Your task to perform on an android device: Go to Google Image 0: 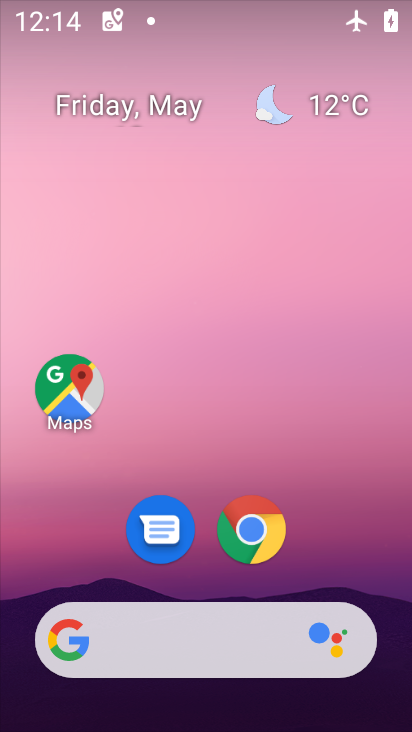
Step 0: drag from (327, 399) to (323, 263)
Your task to perform on an android device: Go to Google Image 1: 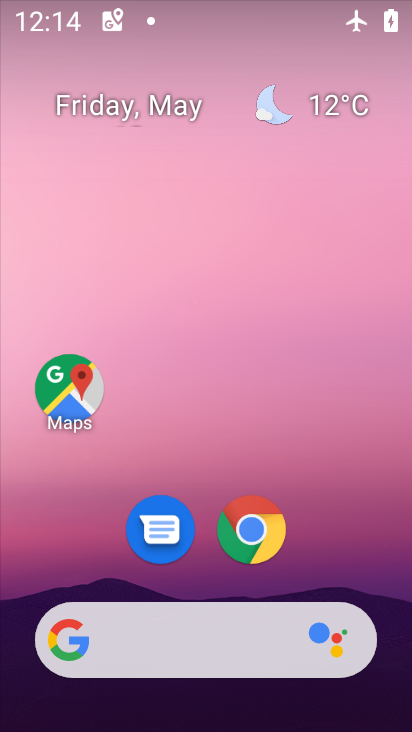
Step 1: drag from (308, 552) to (278, 183)
Your task to perform on an android device: Go to Google Image 2: 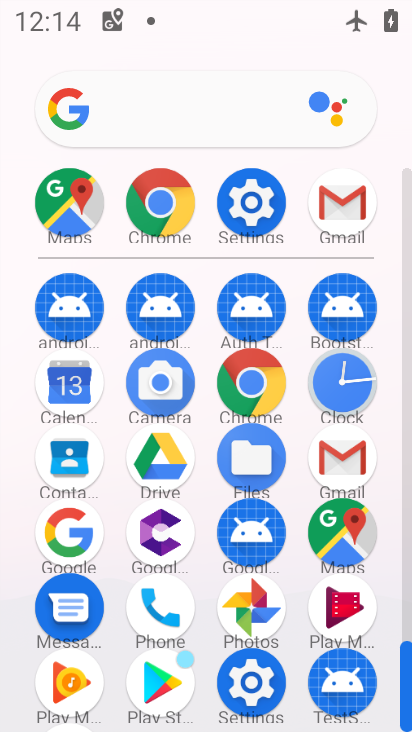
Step 2: click (60, 539)
Your task to perform on an android device: Go to Google Image 3: 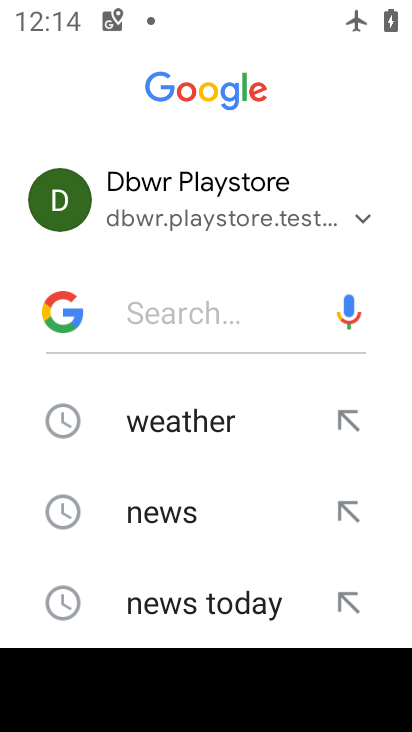
Step 3: task complete